Your task to perform on an android device: install app "Google Play Games" Image 0: 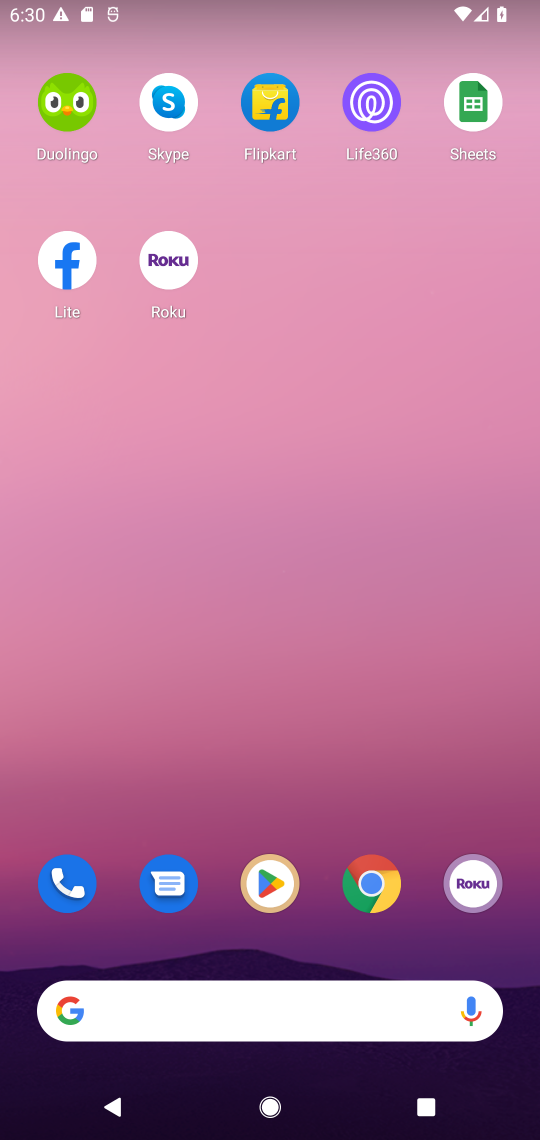
Step 0: drag from (324, 974) to (324, 241)
Your task to perform on an android device: install app "Google Play Games" Image 1: 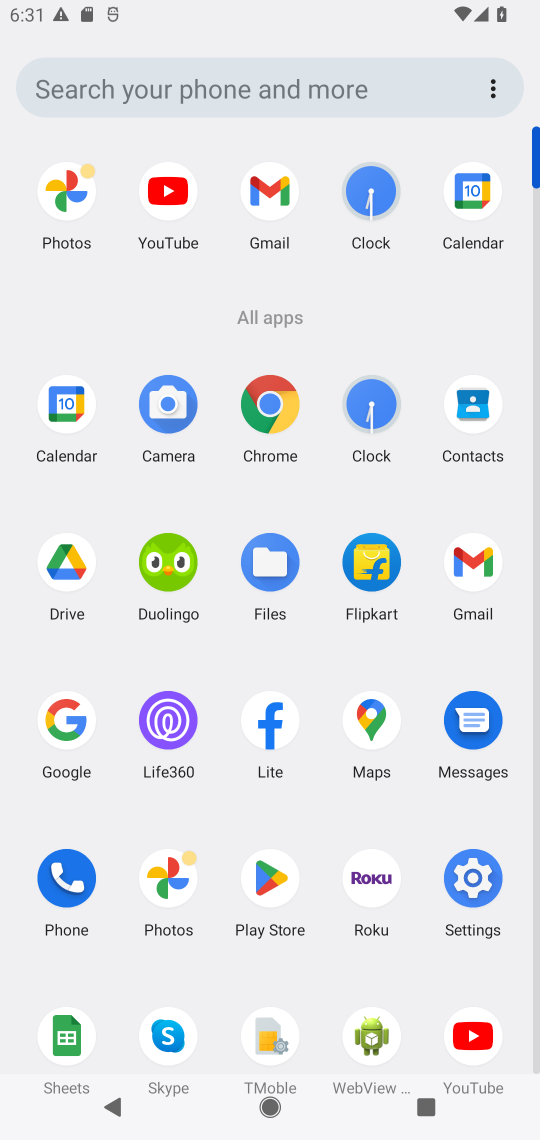
Step 1: click (268, 867)
Your task to perform on an android device: install app "Google Play Games" Image 2: 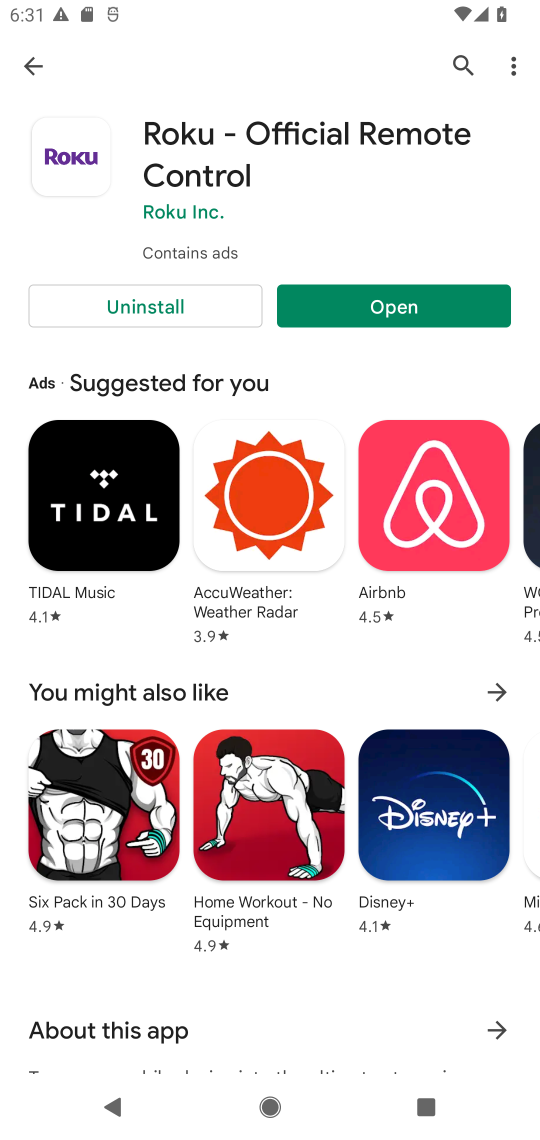
Step 2: click (462, 52)
Your task to perform on an android device: install app "Google Play Games" Image 3: 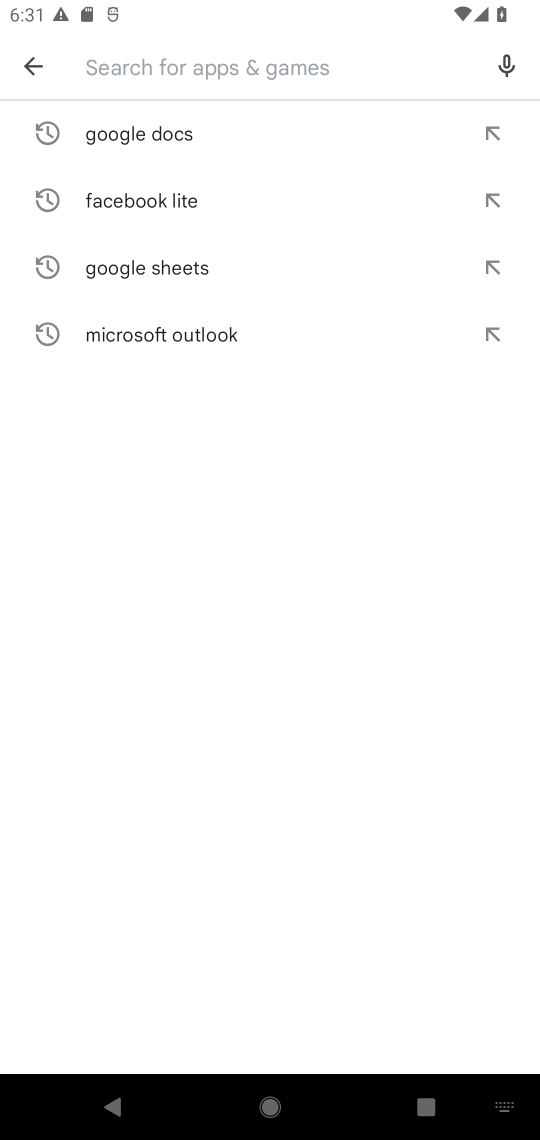
Step 3: type "Google Play Games"
Your task to perform on an android device: install app "Google Play Games" Image 4: 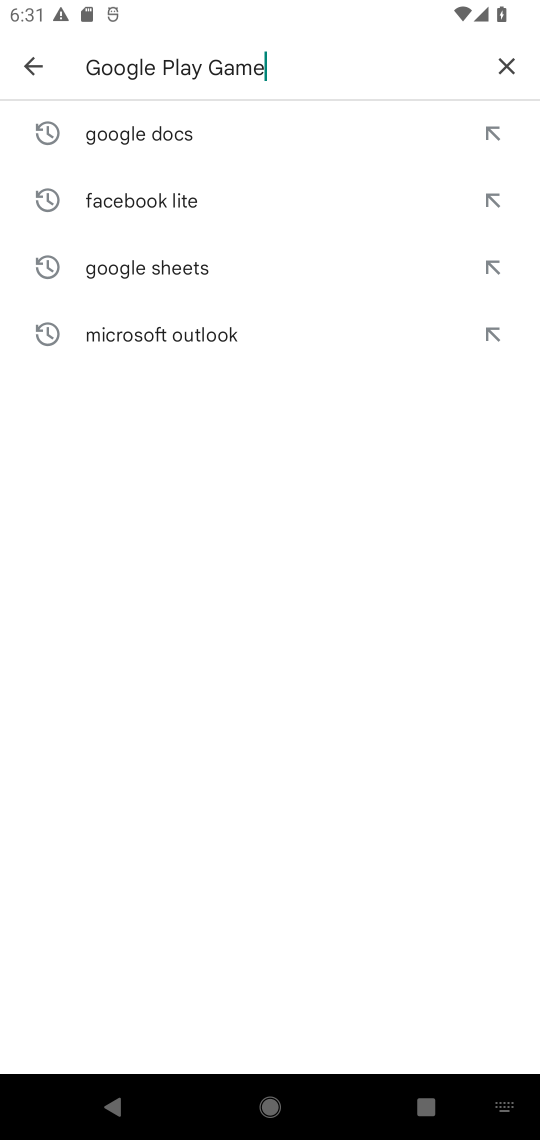
Step 4: type ""
Your task to perform on an android device: install app "Google Play Games" Image 5: 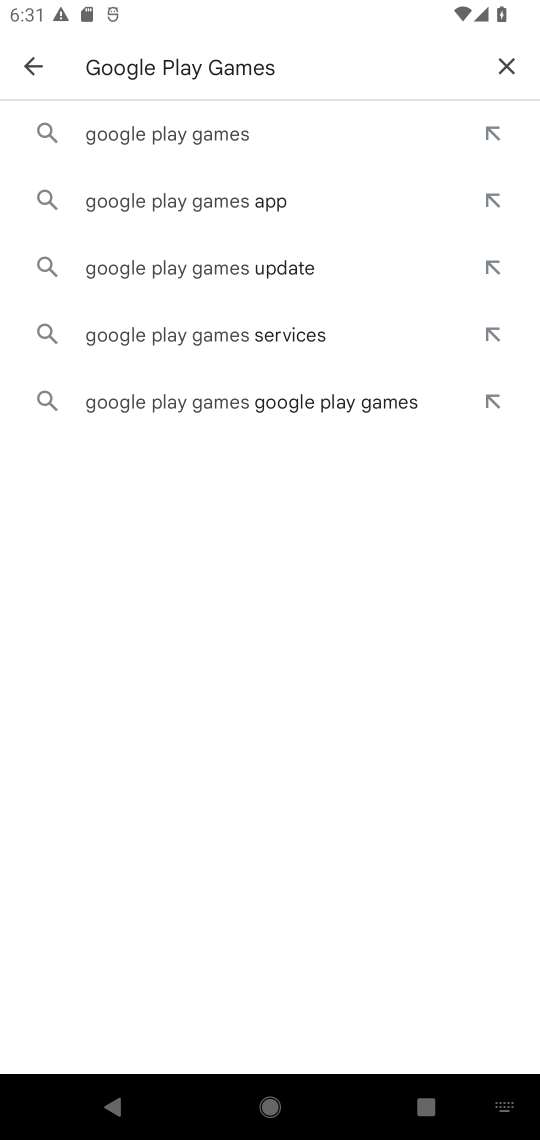
Step 5: click (169, 135)
Your task to perform on an android device: install app "Google Play Games" Image 6: 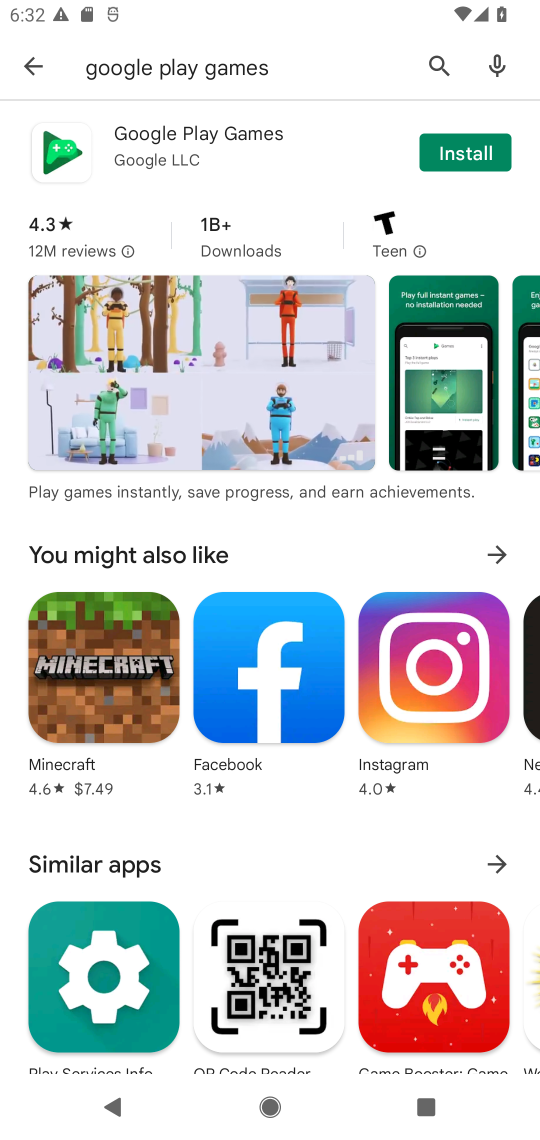
Step 6: click (472, 148)
Your task to perform on an android device: install app "Google Play Games" Image 7: 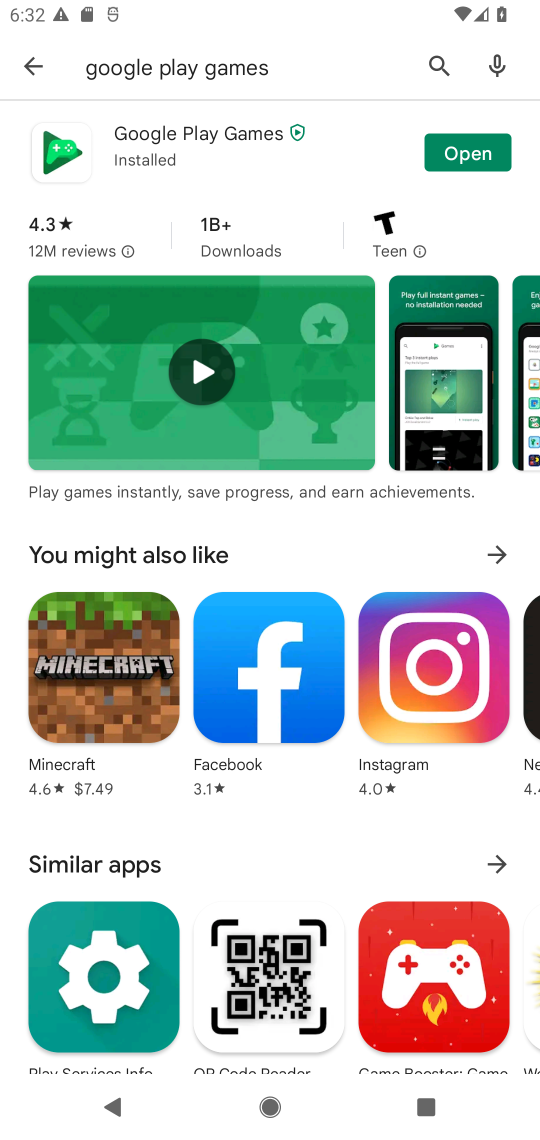
Step 7: task complete